Your task to perform on an android device: Open sound settings Image 0: 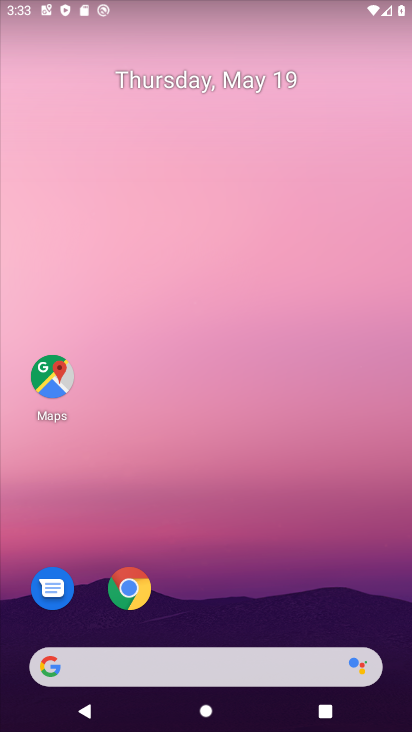
Step 0: drag from (164, 617) to (150, 73)
Your task to perform on an android device: Open sound settings Image 1: 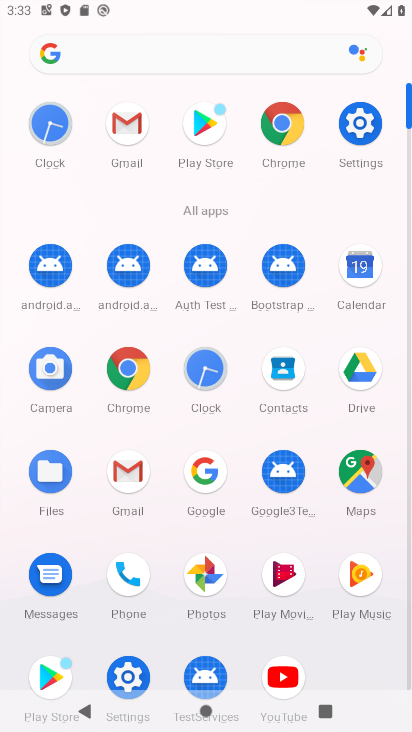
Step 1: click (361, 125)
Your task to perform on an android device: Open sound settings Image 2: 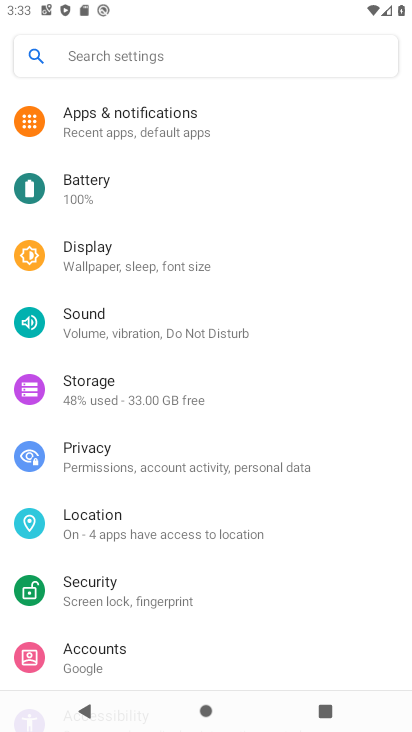
Step 2: click (105, 329)
Your task to perform on an android device: Open sound settings Image 3: 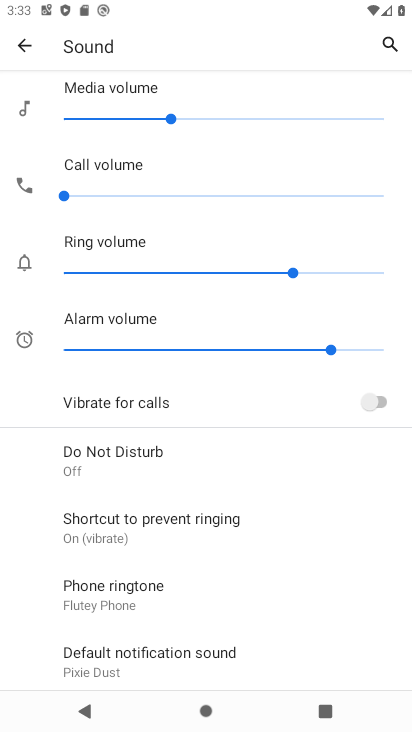
Step 3: task complete